Your task to perform on an android device: Open Google Chrome Image 0: 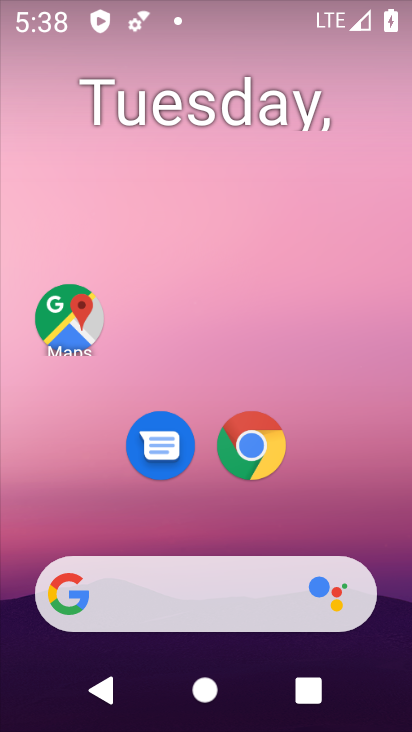
Step 0: drag from (308, 524) to (351, 148)
Your task to perform on an android device: Open Google Chrome Image 1: 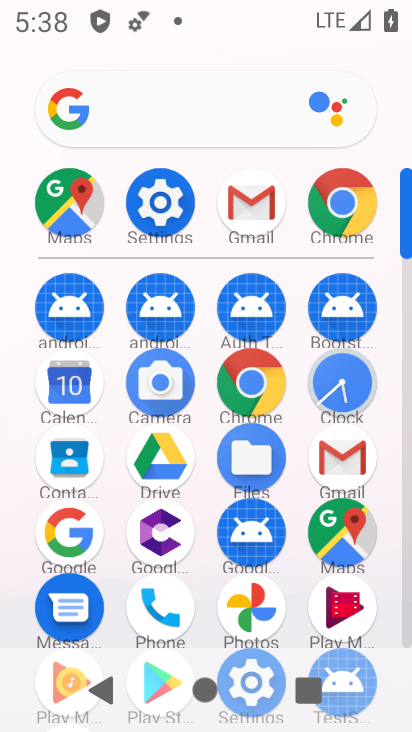
Step 1: click (258, 394)
Your task to perform on an android device: Open Google Chrome Image 2: 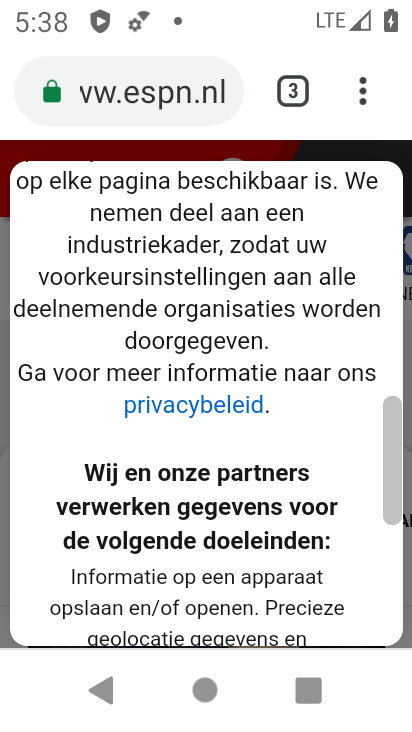
Step 2: task complete